Your task to perform on an android device: turn on the 24-hour format for clock Image 0: 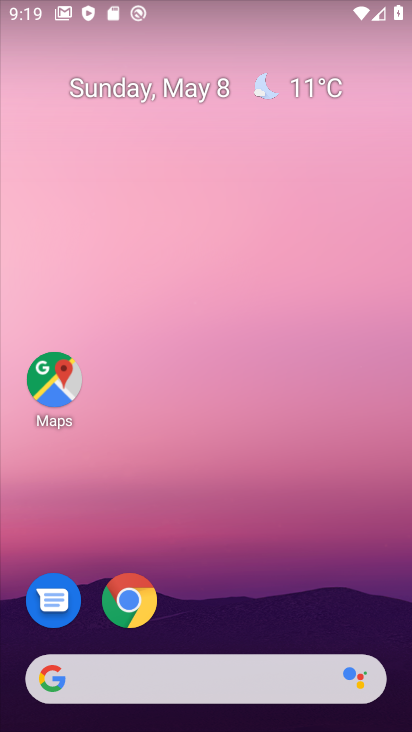
Step 0: drag from (218, 629) to (269, 34)
Your task to perform on an android device: turn on the 24-hour format for clock Image 1: 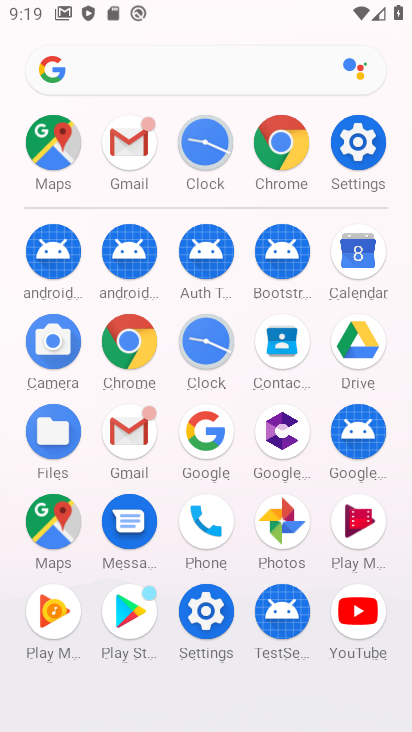
Step 1: click (188, 157)
Your task to perform on an android device: turn on the 24-hour format for clock Image 2: 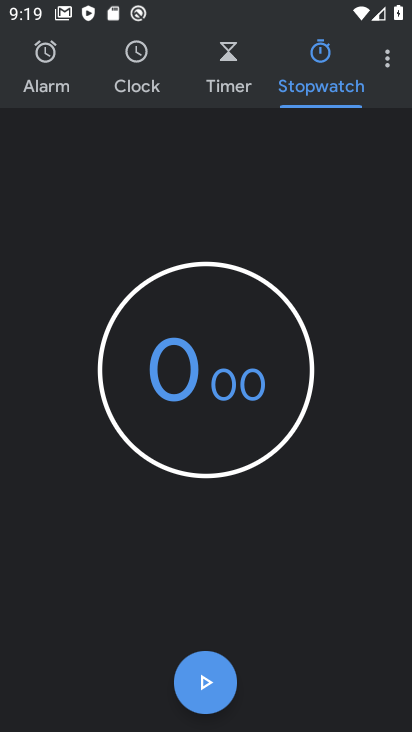
Step 2: click (398, 56)
Your task to perform on an android device: turn on the 24-hour format for clock Image 3: 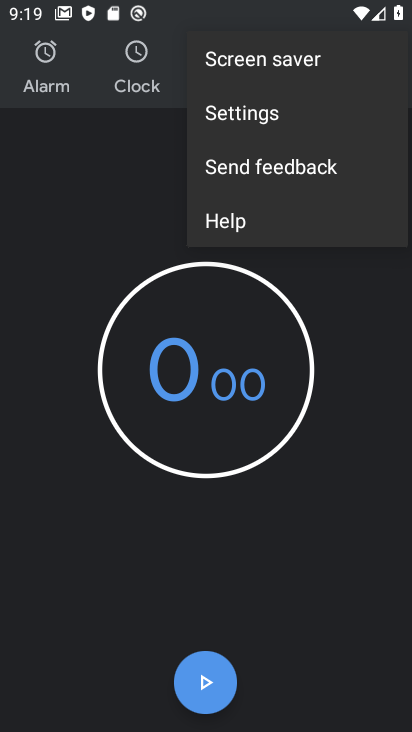
Step 3: click (330, 102)
Your task to perform on an android device: turn on the 24-hour format for clock Image 4: 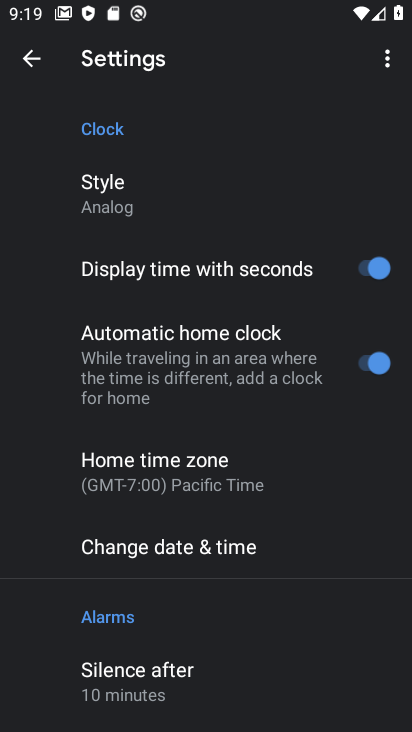
Step 4: click (264, 552)
Your task to perform on an android device: turn on the 24-hour format for clock Image 5: 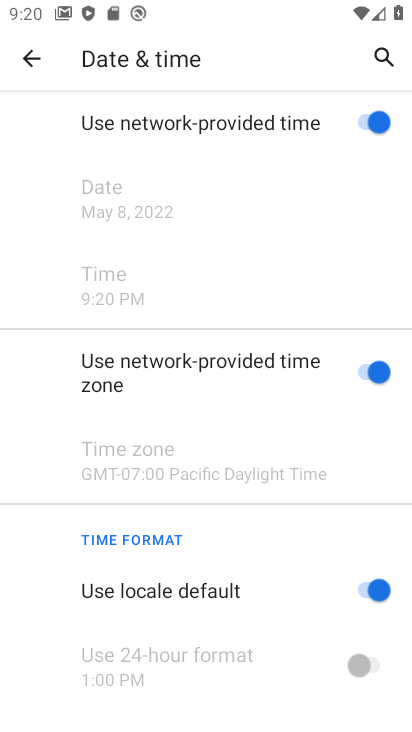
Step 5: click (367, 587)
Your task to perform on an android device: turn on the 24-hour format for clock Image 6: 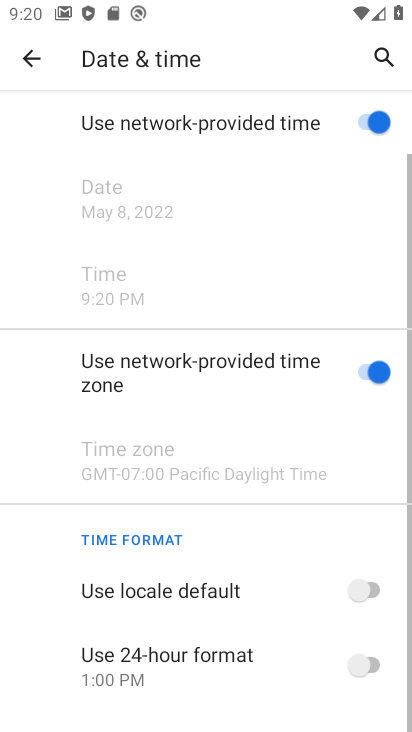
Step 6: click (373, 668)
Your task to perform on an android device: turn on the 24-hour format for clock Image 7: 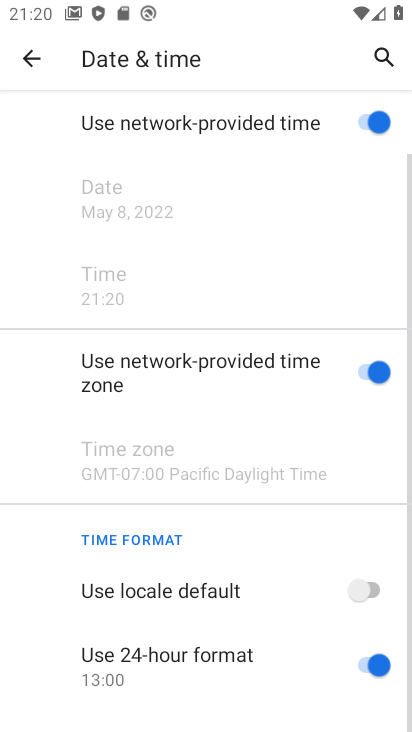
Step 7: task complete